Your task to perform on an android device: turn off wifi Image 0: 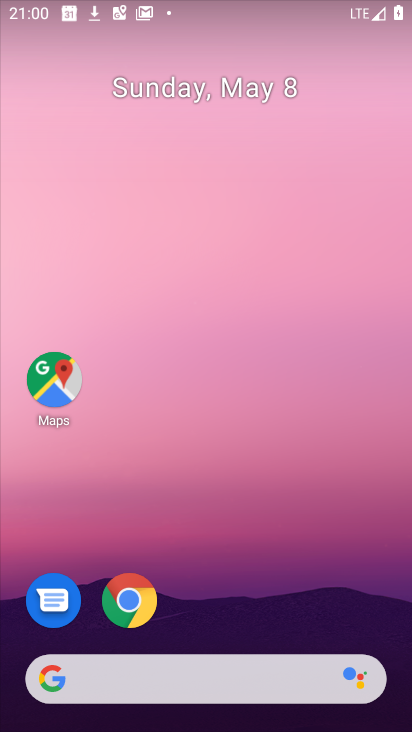
Step 0: drag from (262, 705) to (362, 283)
Your task to perform on an android device: turn off wifi Image 1: 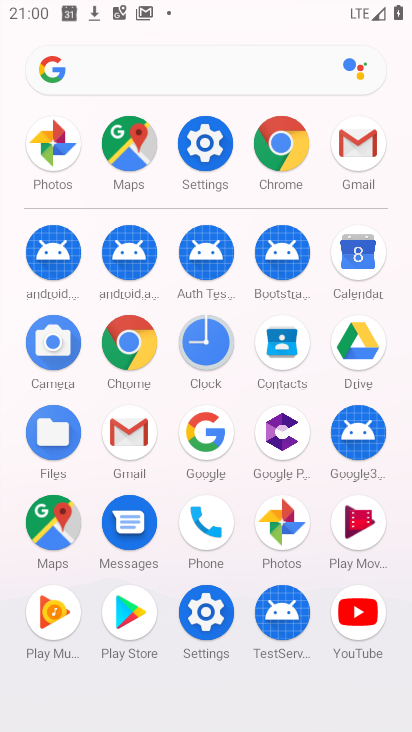
Step 1: click (204, 157)
Your task to perform on an android device: turn off wifi Image 2: 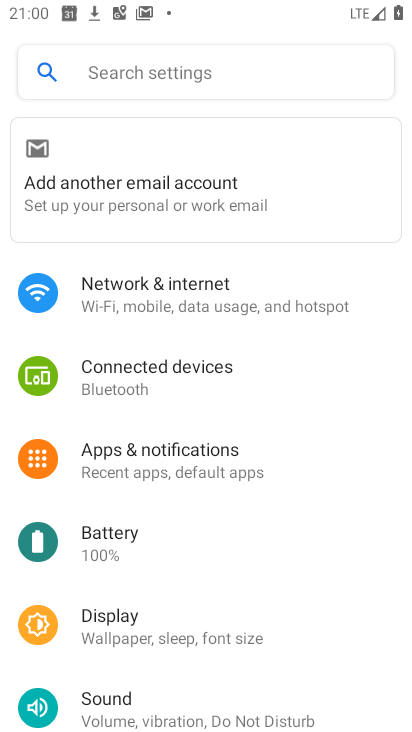
Step 2: click (164, 283)
Your task to perform on an android device: turn off wifi Image 3: 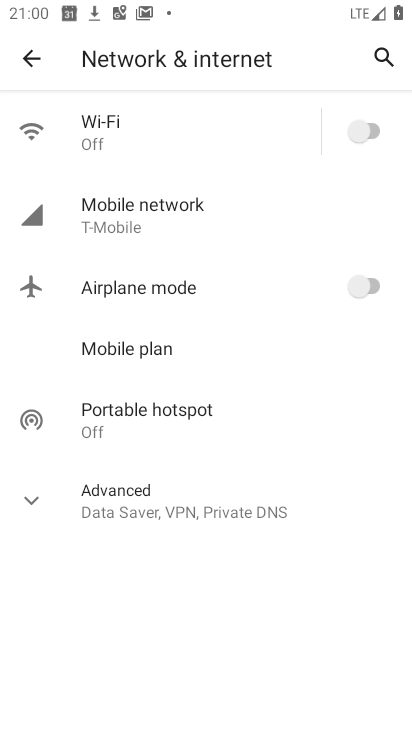
Step 3: click (120, 146)
Your task to perform on an android device: turn off wifi Image 4: 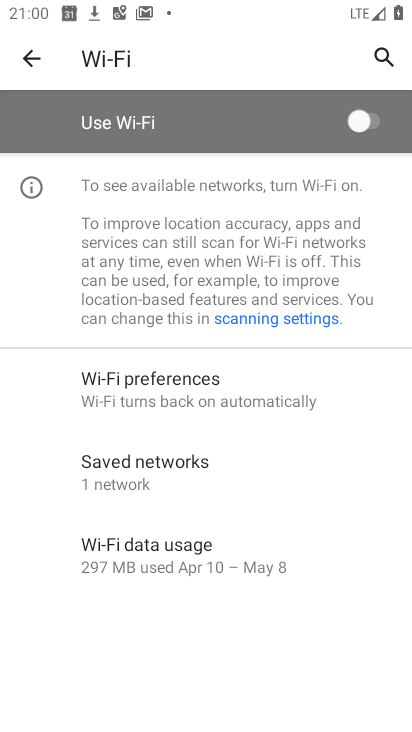
Step 4: click (369, 126)
Your task to perform on an android device: turn off wifi Image 5: 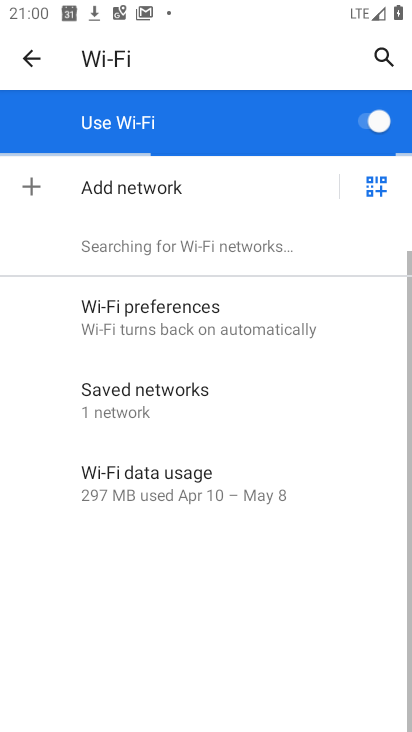
Step 5: click (369, 119)
Your task to perform on an android device: turn off wifi Image 6: 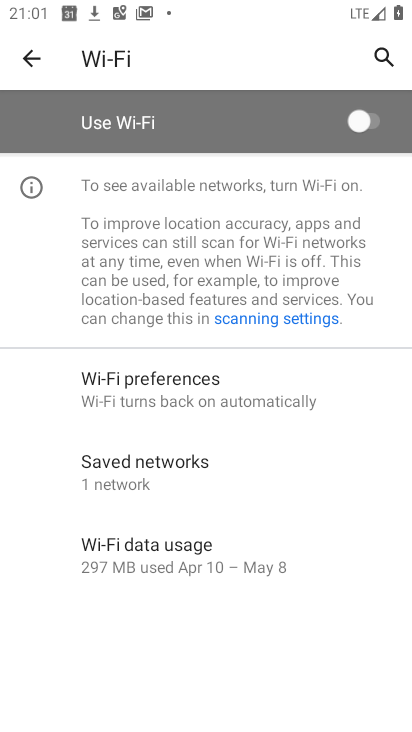
Step 6: task complete